Your task to perform on an android device: check storage Image 0: 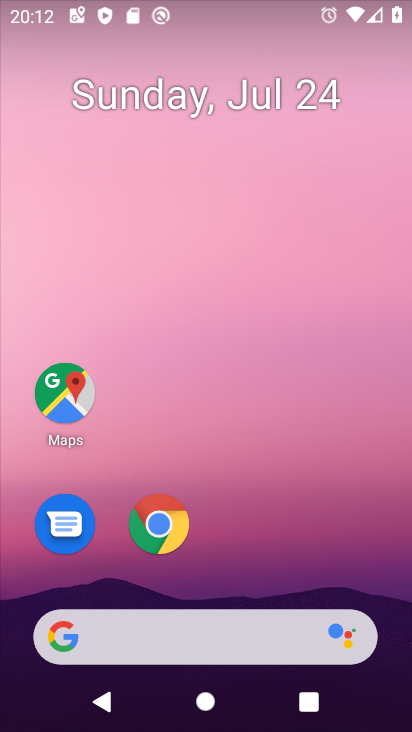
Step 0: drag from (249, 546) to (256, 0)
Your task to perform on an android device: check storage Image 1: 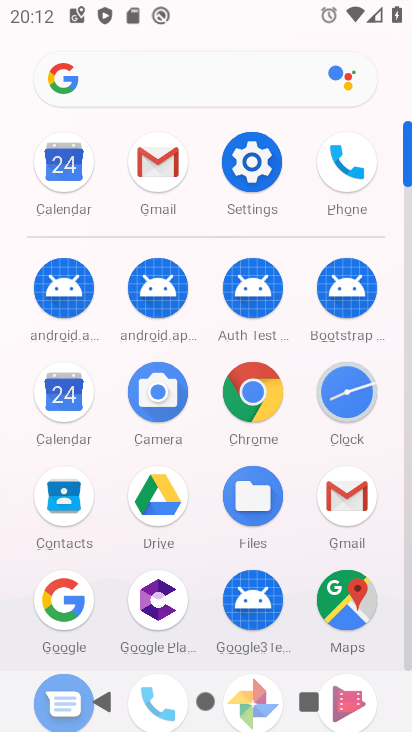
Step 1: click (252, 165)
Your task to perform on an android device: check storage Image 2: 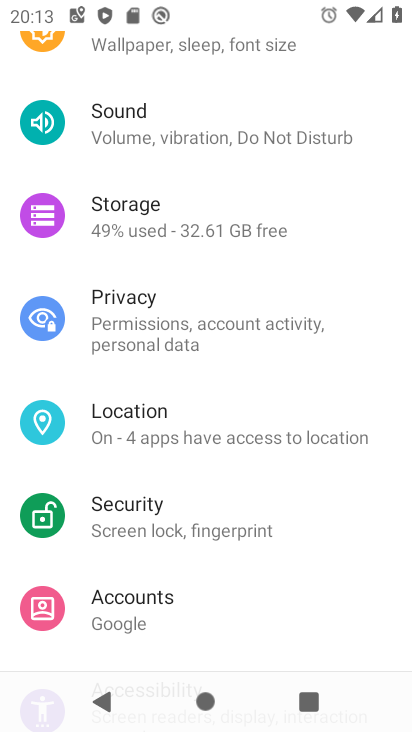
Step 2: click (244, 219)
Your task to perform on an android device: check storage Image 3: 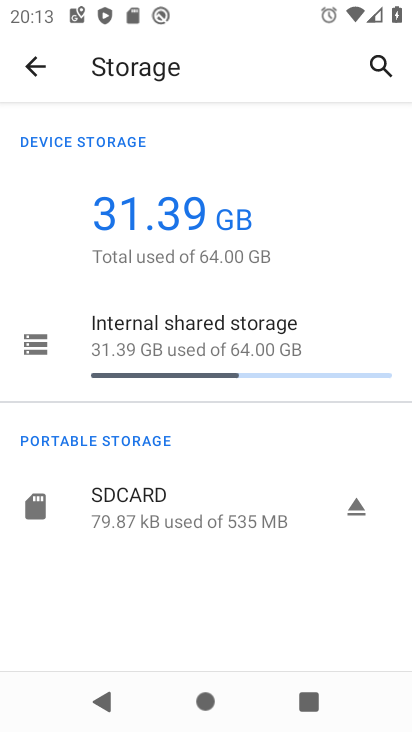
Step 3: task complete